Your task to perform on an android device: Search for a 4k TV on Best Buy Image 0: 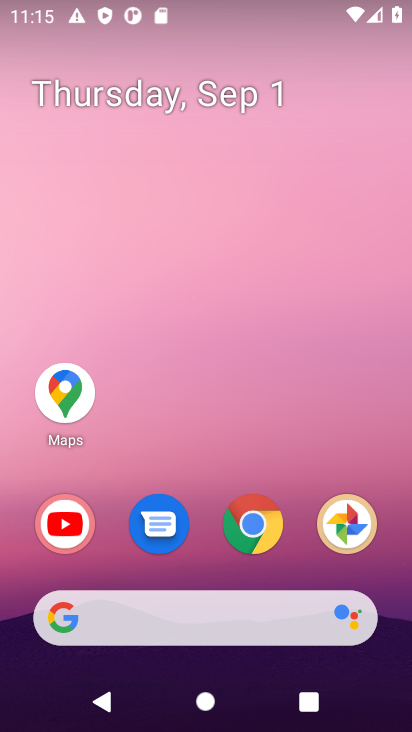
Step 0: click (256, 537)
Your task to perform on an android device: Search for a 4k TV on Best Buy Image 1: 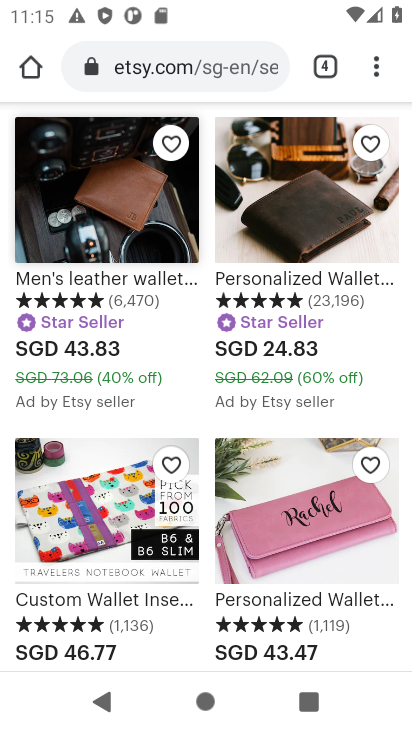
Step 1: click (329, 65)
Your task to perform on an android device: Search for a 4k TV on Best Buy Image 2: 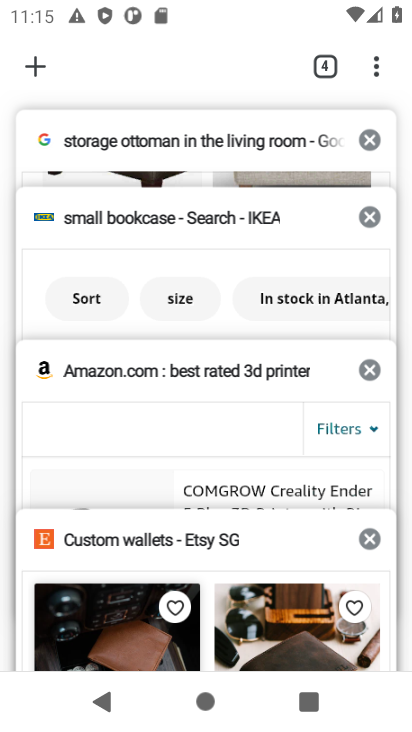
Step 2: click (40, 66)
Your task to perform on an android device: Search for a 4k TV on Best Buy Image 3: 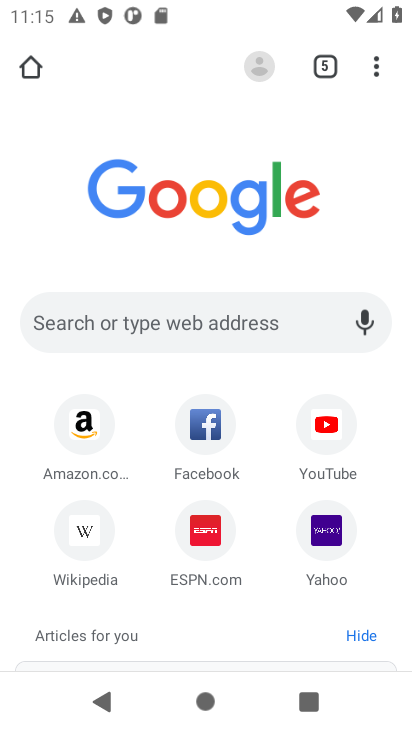
Step 3: click (120, 327)
Your task to perform on an android device: Search for a 4k TV on Best Buy Image 4: 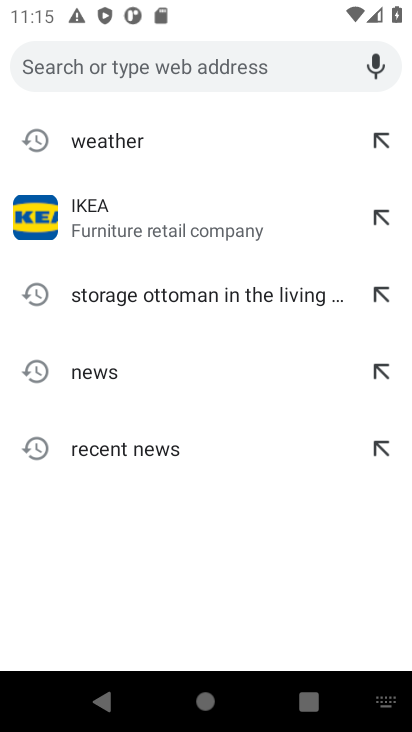
Step 4: type "best buy"
Your task to perform on an android device: Search for a 4k TV on Best Buy Image 5: 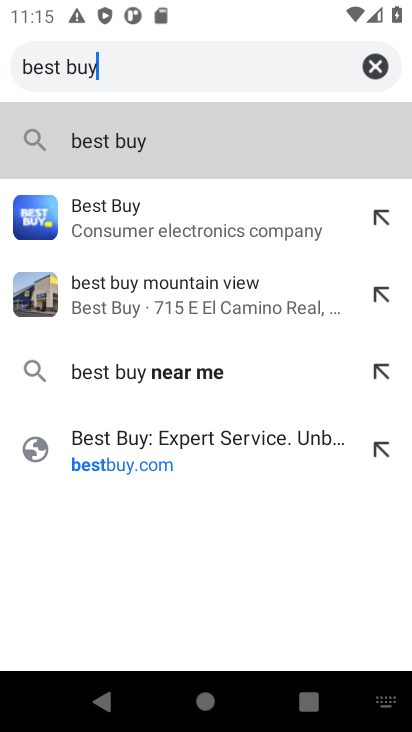
Step 5: click (115, 463)
Your task to perform on an android device: Search for a 4k TV on Best Buy Image 6: 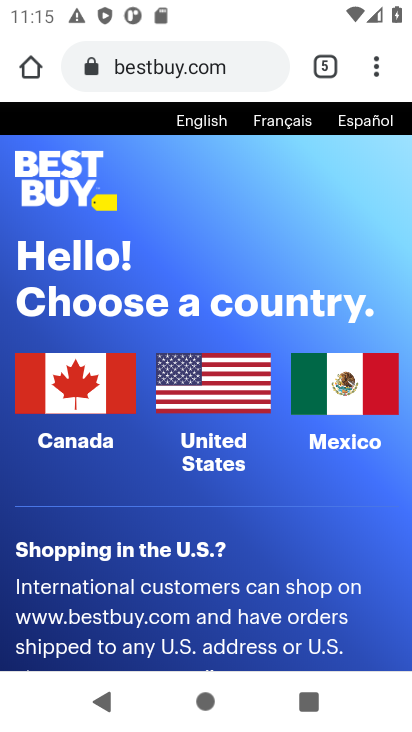
Step 6: click (212, 393)
Your task to perform on an android device: Search for a 4k TV on Best Buy Image 7: 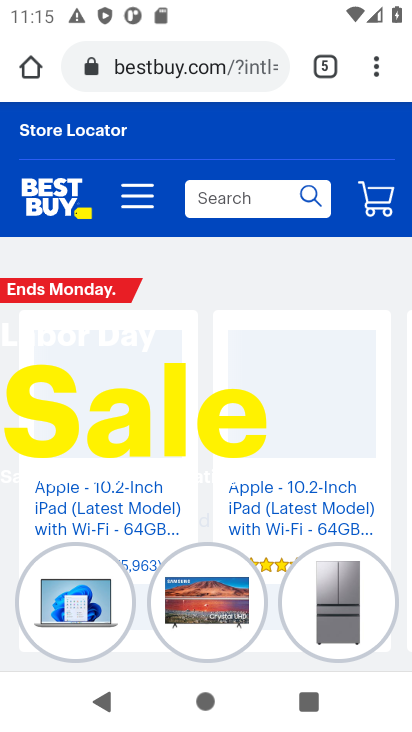
Step 7: click (231, 202)
Your task to perform on an android device: Search for a 4k TV on Best Buy Image 8: 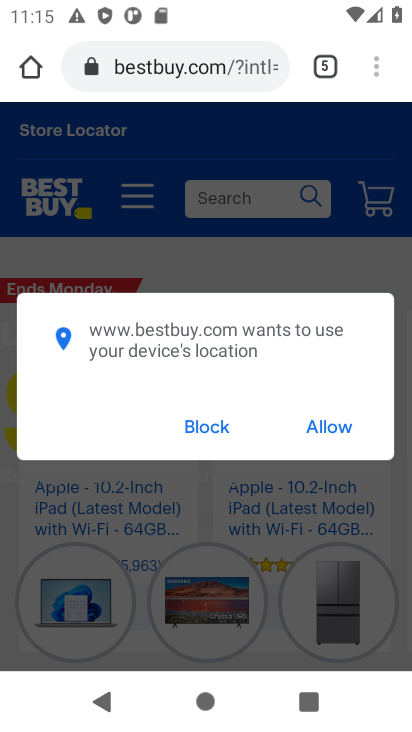
Step 8: click (210, 428)
Your task to perform on an android device: Search for a 4k TV on Best Buy Image 9: 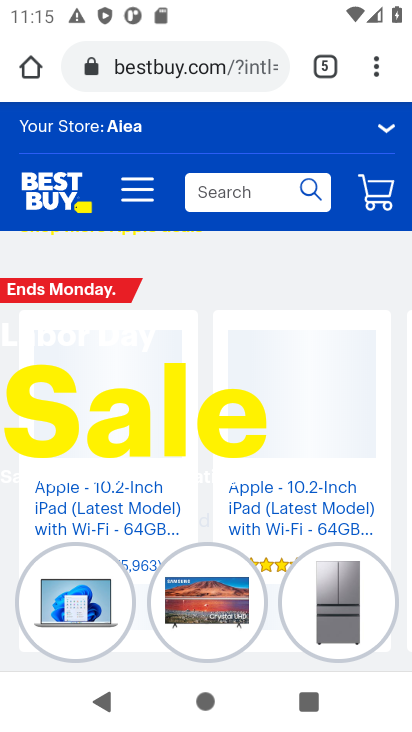
Step 9: click (221, 193)
Your task to perform on an android device: Search for a 4k TV on Best Buy Image 10: 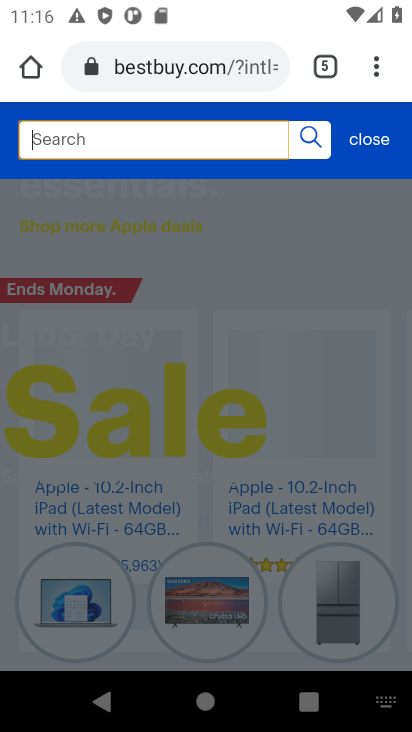
Step 10: type "4k TV"
Your task to perform on an android device: Search for a 4k TV on Best Buy Image 11: 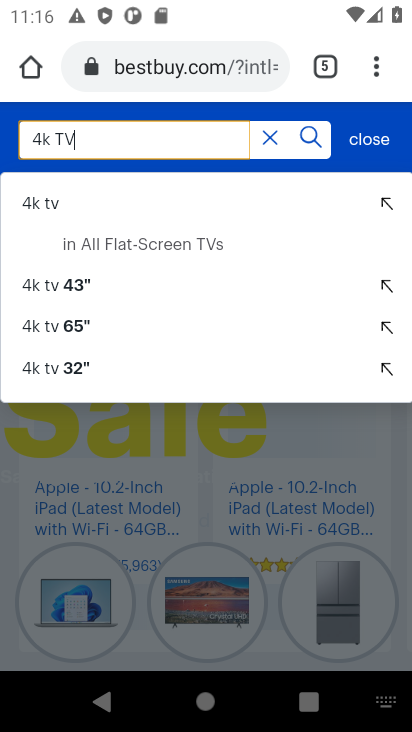
Step 11: click (39, 203)
Your task to perform on an android device: Search for a 4k TV on Best Buy Image 12: 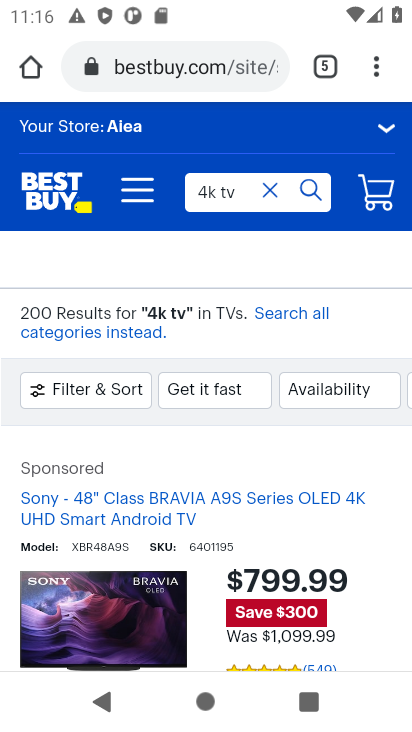
Step 12: task complete